Your task to perform on an android device: delete a single message in the gmail app Image 0: 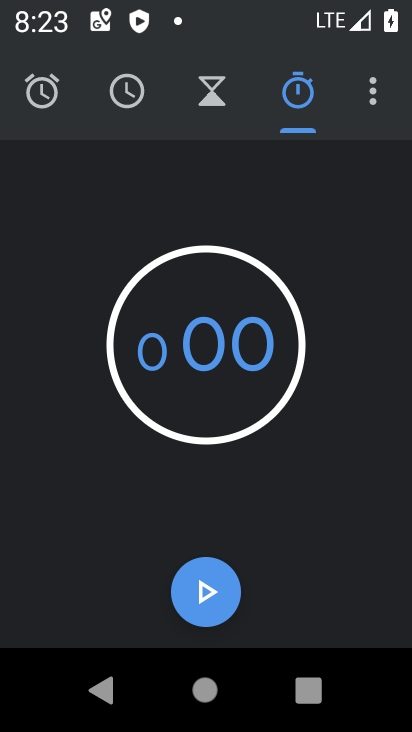
Step 0: press home button
Your task to perform on an android device: delete a single message in the gmail app Image 1: 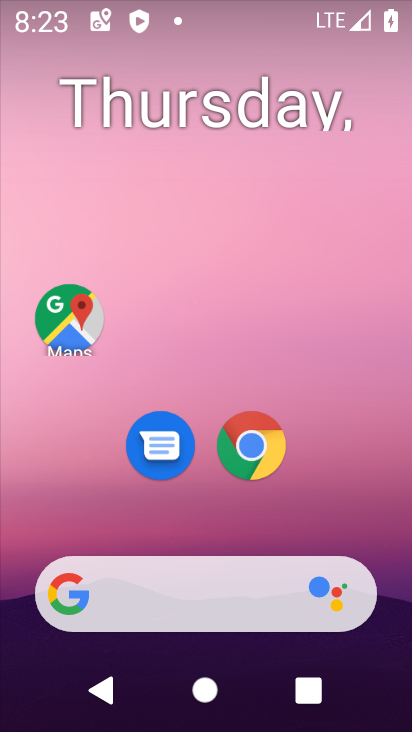
Step 1: drag from (373, 549) to (307, 33)
Your task to perform on an android device: delete a single message in the gmail app Image 2: 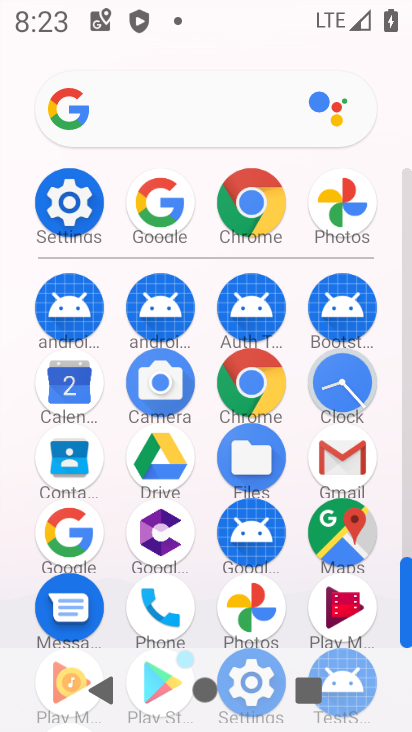
Step 2: click (317, 460)
Your task to perform on an android device: delete a single message in the gmail app Image 3: 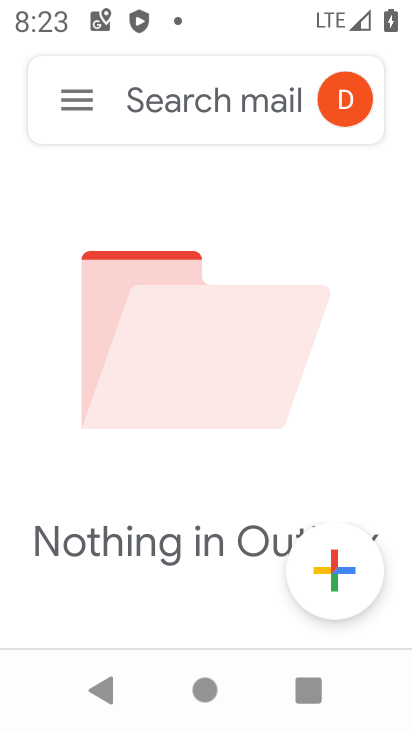
Step 3: click (73, 92)
Your task to perform on an android device: delete a single message in the gmail app Image 4: 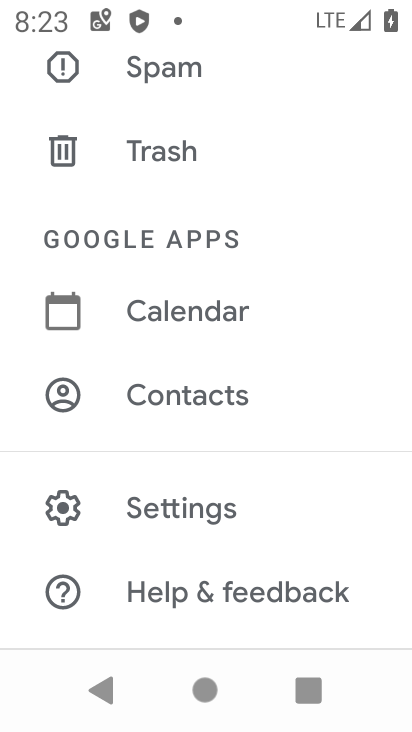
Step 4: drag from (108, 109) to (171, 666)
Your task to perform on an android device: delete a single message in the gmail app Image 5: 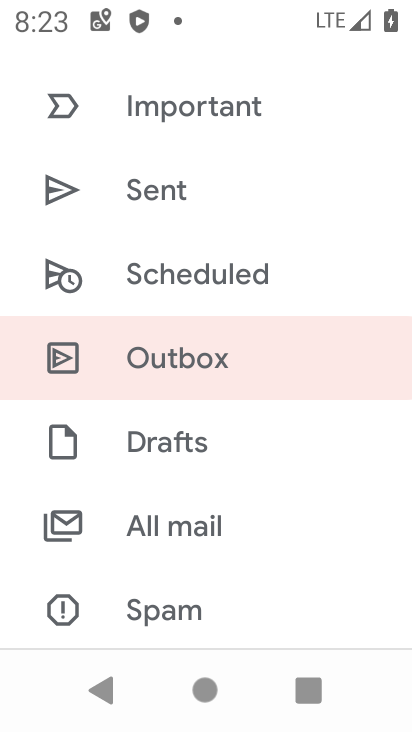
Step 5: drag from (196, 143) to (246, 707)
Your task to perform on an android device: delete a single message in the gmail app Image 6: 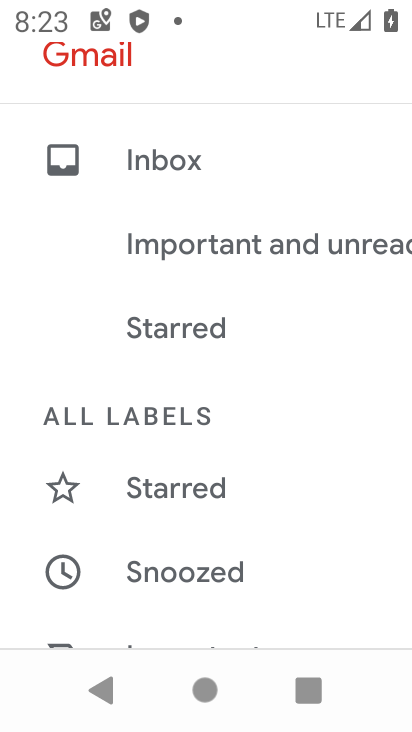
Step 6: click (198, 168)
Your task to perform on an android device: delete a single message in the gmail app Image 7: 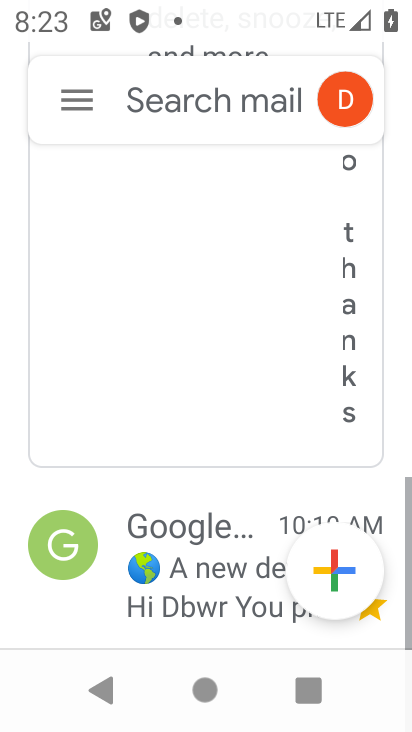
Step 7: click (204, 559)
Your task to perform on an android device: delete a single message in the gmail app Image 8: 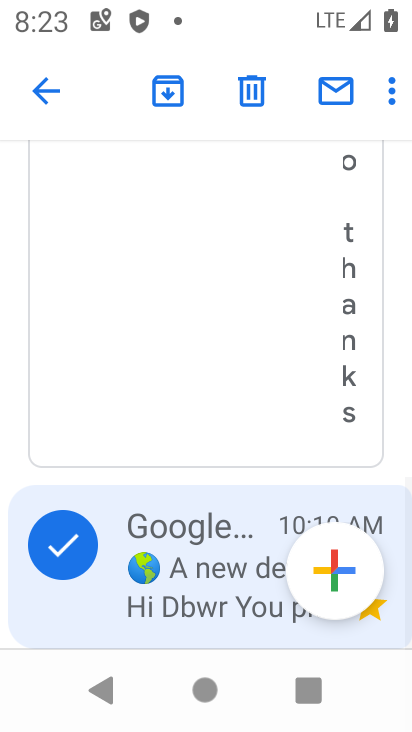
Step 8: click (255, 104)
Your task to perform on an android device: delete a single message in the gmail app Image 9: 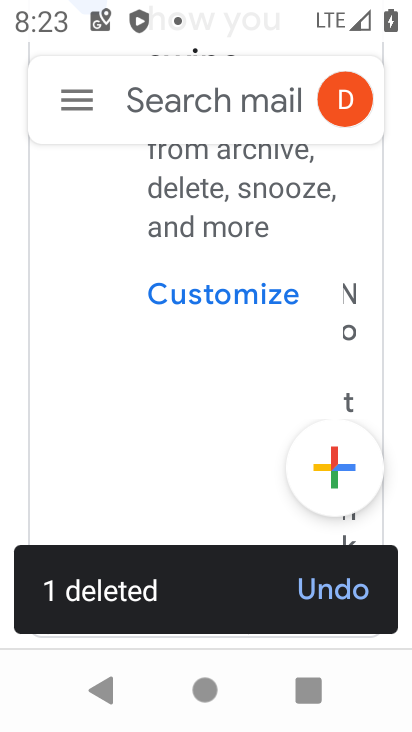
Step 9: task complete